Your task to perform on an android device: check storage Image 0: 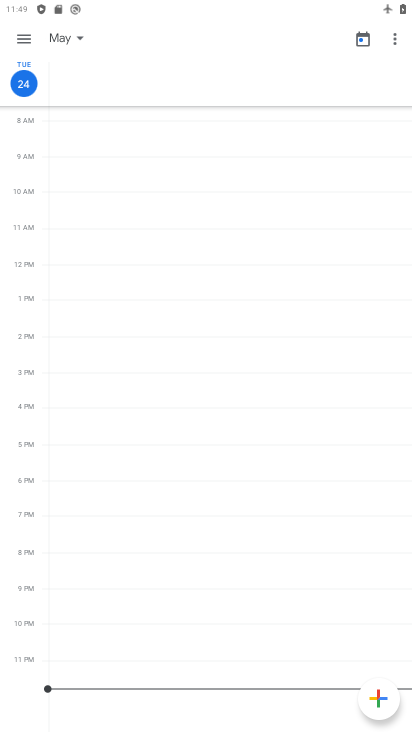
Step 0: press home button
Your task to perform on an android device: check storage Image 1: 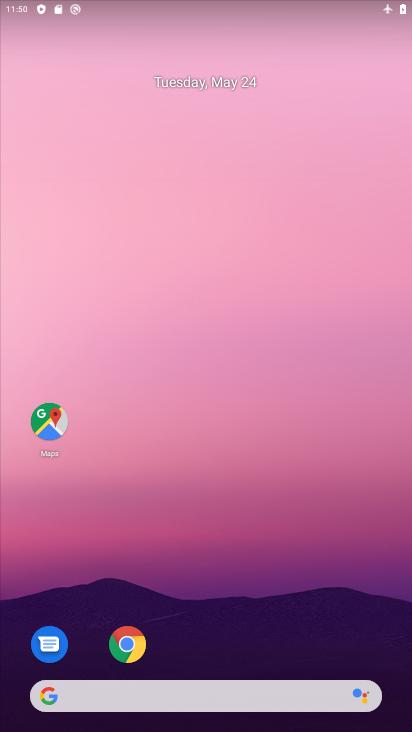
Step 1: drag from (233, 631) to (180, 132)
Your task to perform on an android device: check storage Image 2: 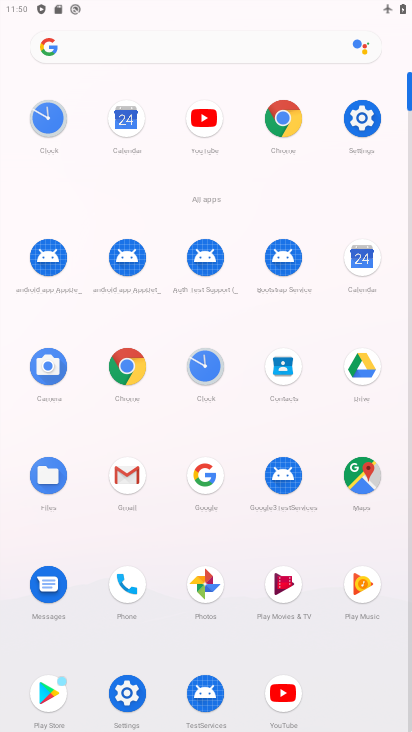
Step 2: click (369, 124)
Your task to perform on an android device: check storage Image 3: 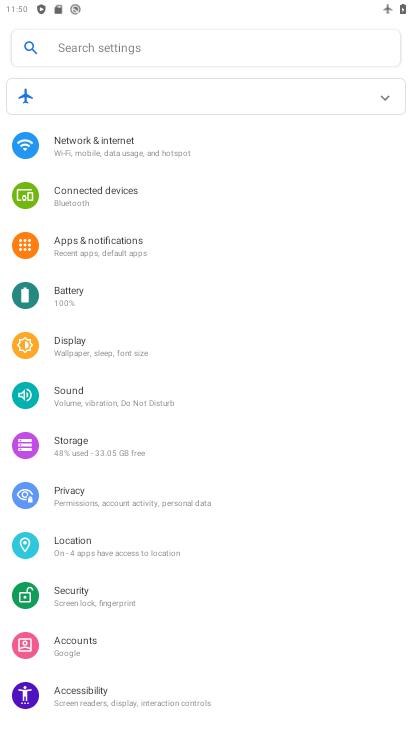
Step 3: click (74, 450)
Your task to perform on an android device: check storage Image 4: 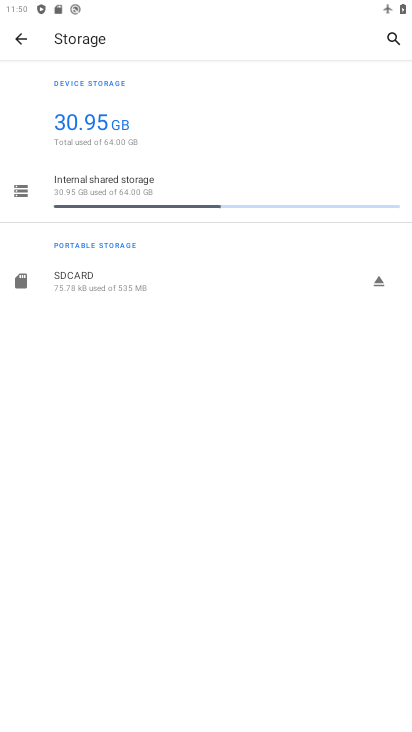
Step 4: task complete